Your task to perform on an android device: see tabs open on other devices in the chrome app Image 0: 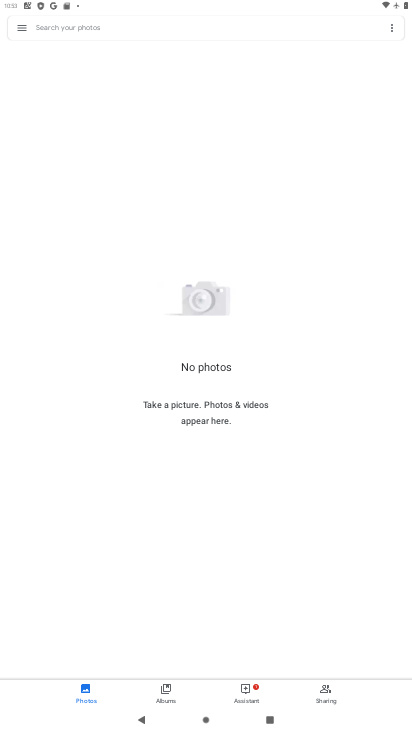
Step 0: press home button
Your task to perform on an android device: see tabs open on other devices in the chrome app Image 1: 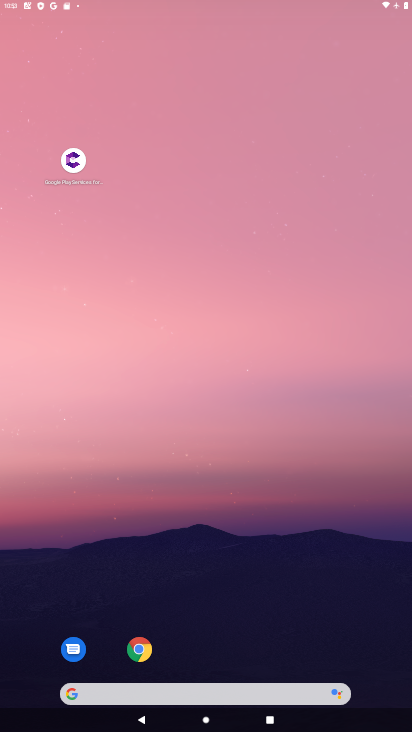
Step 1: drag from (278, 622) to (296, 203)
Your task to perform on an android device: see tabs open on other devices in the chrome app Image 2: 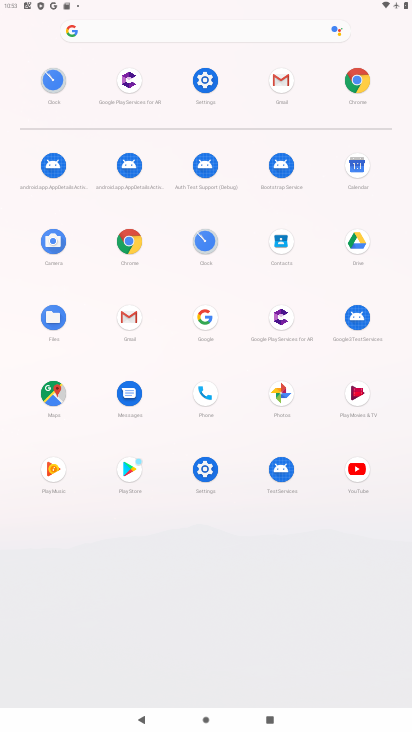
Step 2: click (119, 236)
Your task to perform on an android device: see tabs open on other devices in the chrome app Image 3: 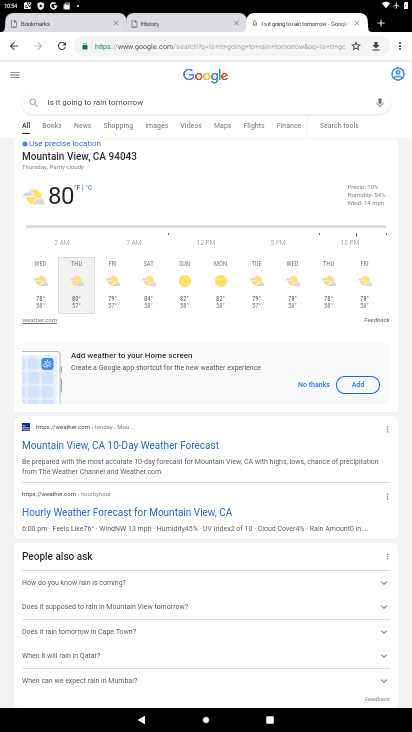
Step 3: click (408, 36)
Your task to perform on an android device: see tabs open on other devices in the chrome app Image 4: 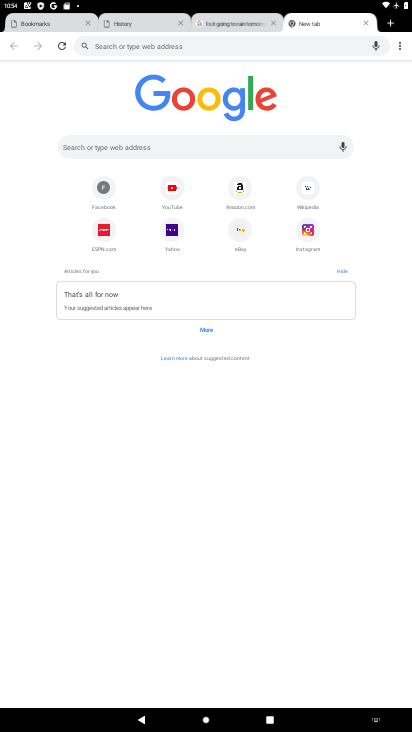
Step 4: click (399, 39)
Your task to perform on an android device: see tabs open on other devices in the chrome app Image 5: 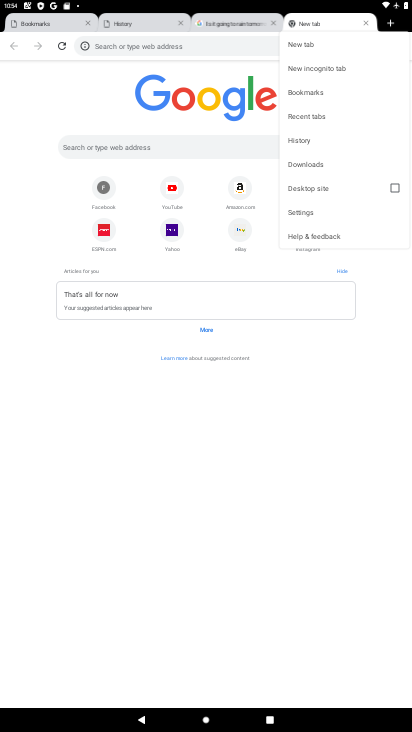
Step 5: click (314, 140)
Your task to perform on an android device: see tabs open on other devices in the chrome app Image 6: 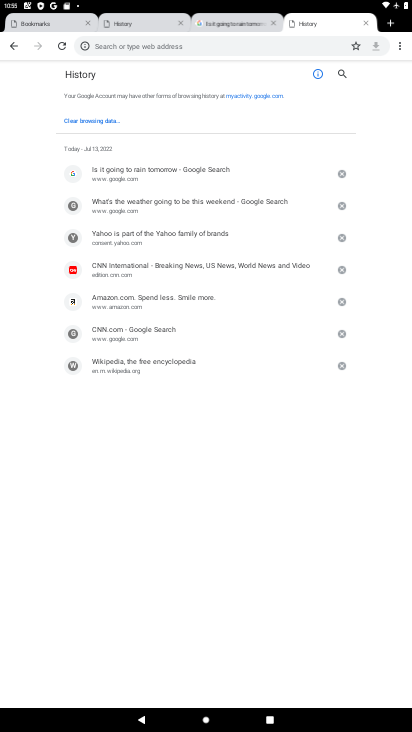
Step 6: task complete